Your task to perform on an android device: Show me recent news Image 0: 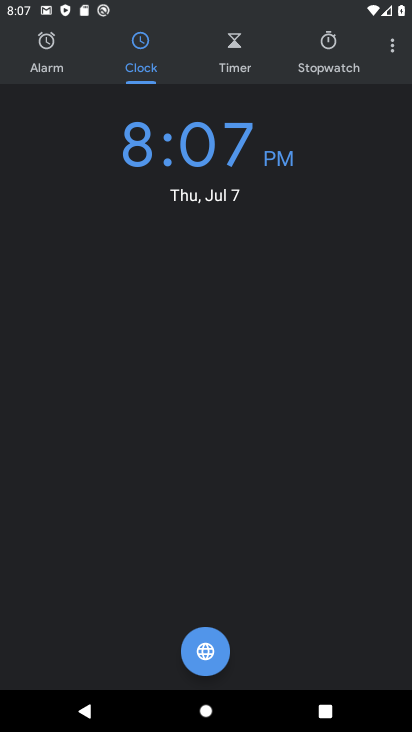
Step 0: press home button
Your task to perform on an android device: Show me recent news Image 1: 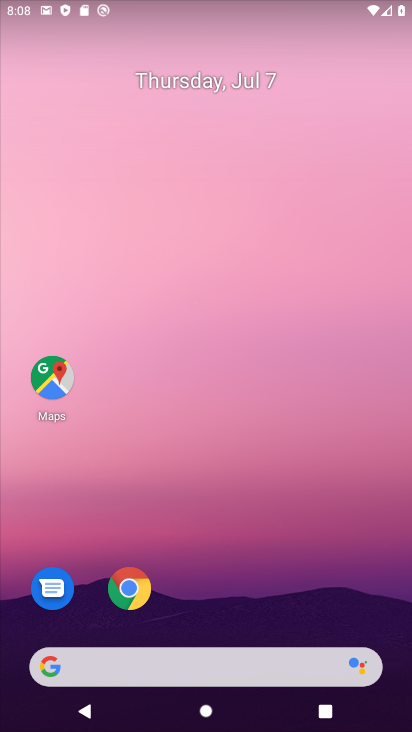
Step 1: drag from (18, 286) to (256, 265)
Your task to perform on an android device: Show me recent news Image 2: 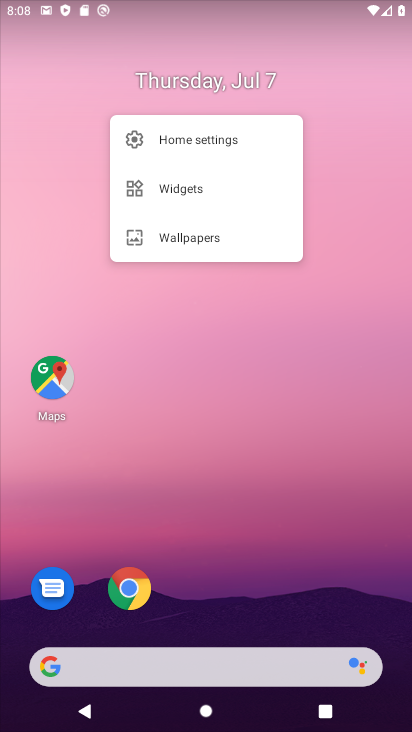
Step 2: drag from (3, 302) to (407, 359)
Your task to perform on an android device: Show me recent news Image 3: 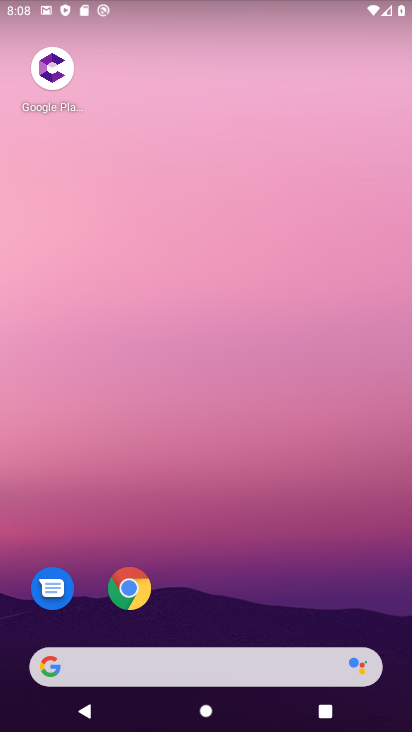
Step 3: click (205, 673)
Your task to perform on an android device: Show me recent news Image 4: 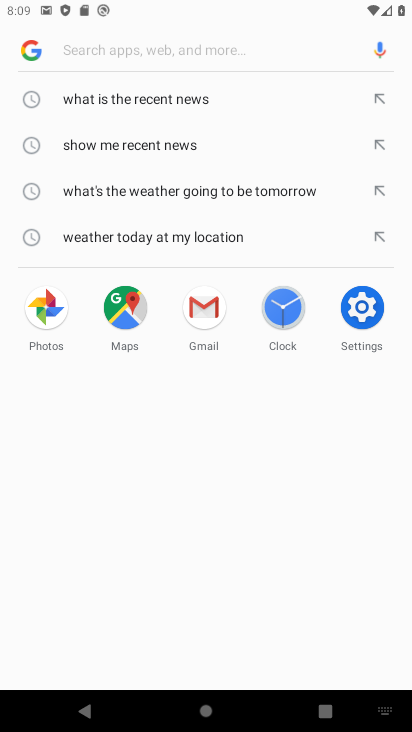
Step 4: type "recent news"
Your task to perform on an android device: Show me recent news Image 5: 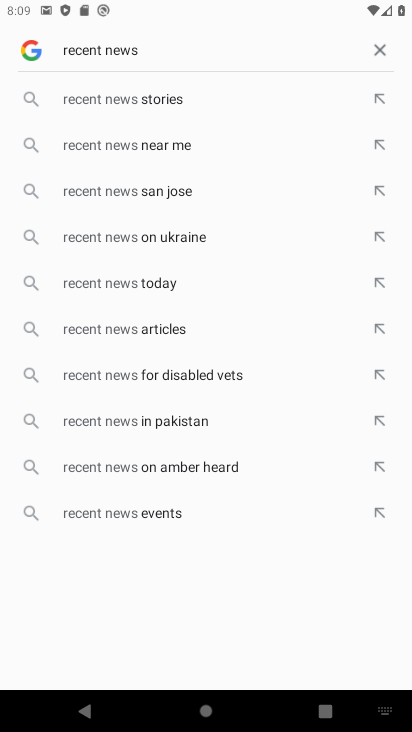
Step 5: press enter
Your task to perform on an android device: Show me recent news Image 6: 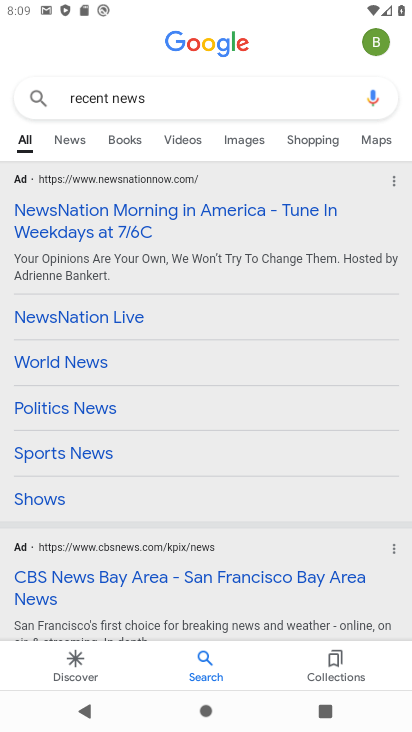
Step 6: drag from (353, 355) to (315, 268)
Your task to perform on an android device: Show me recent news Image 7: 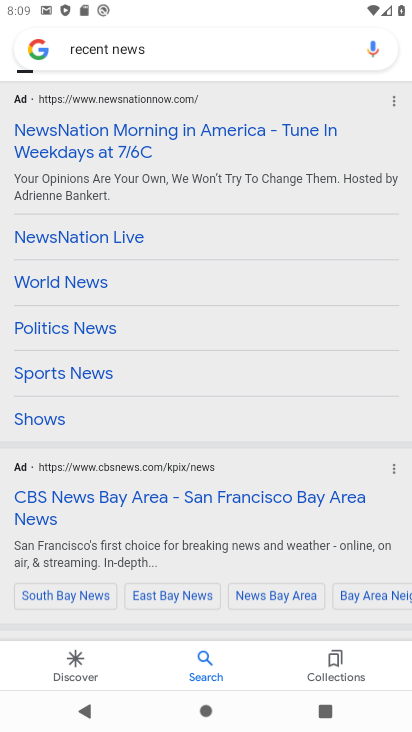
Step 7: drag from (102, 118) to (135, 194)
Your task to perform on an android device: Show me recent news Image 8: 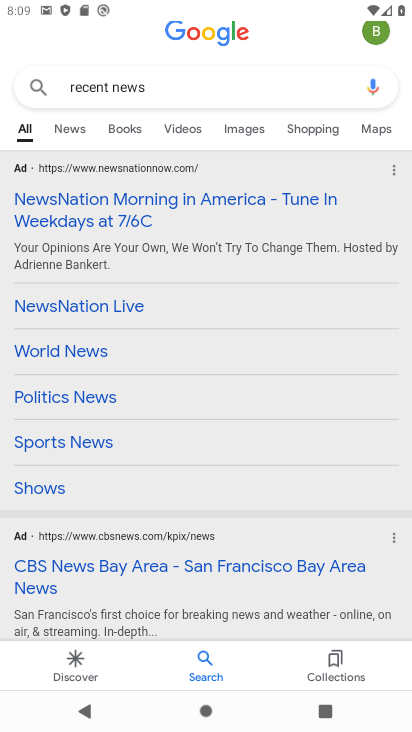
Step 8: click (69, 128)
Your task to perform on an android device: Show me recent news Image 9: 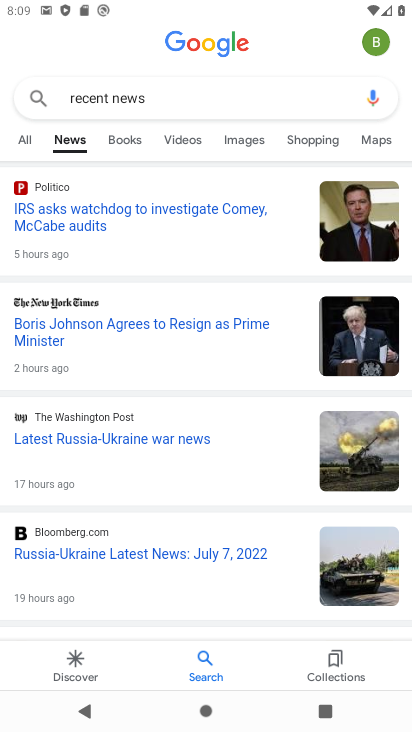
Step 9: task complete